Your task to perform on an android device: change the clock style Image 0: 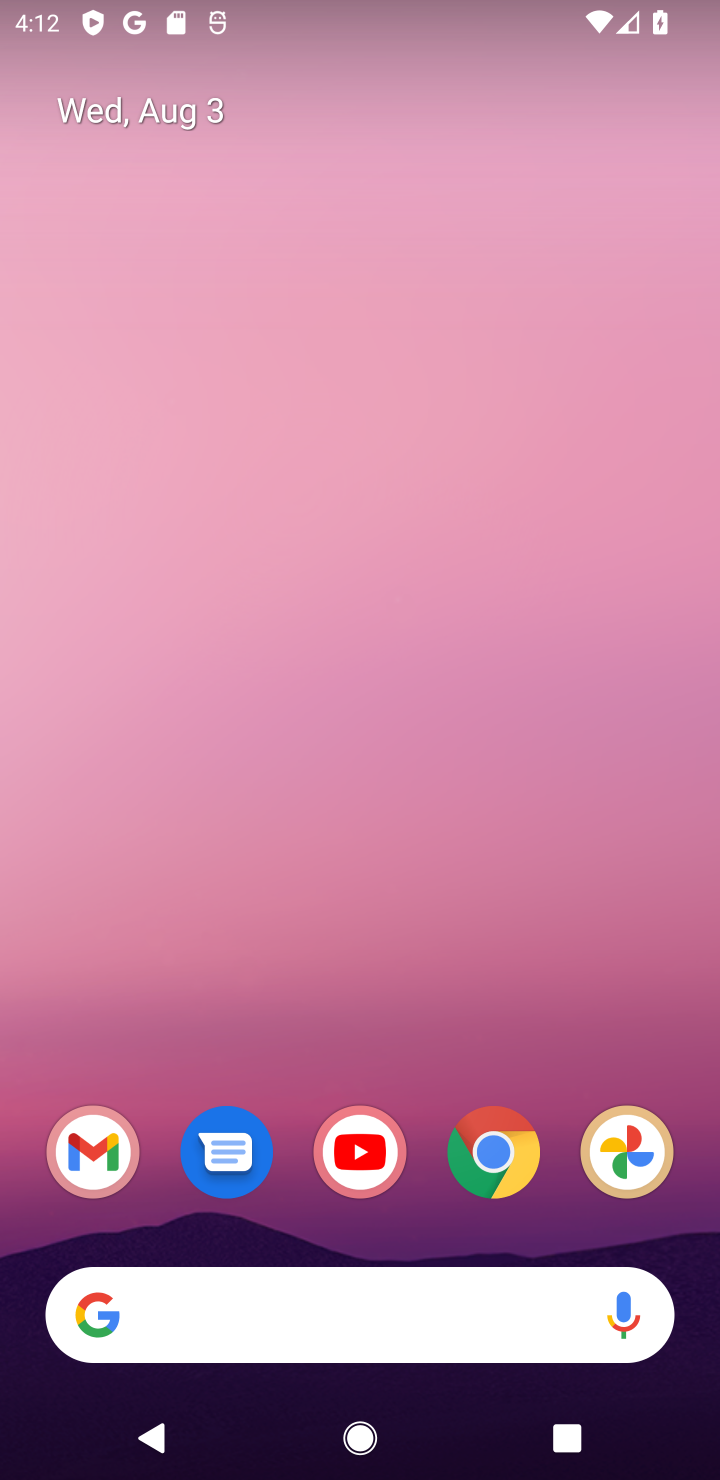
Step 0: drag from (381, 1279) to (434, 471)
Your task to perform on an android device: change the clock style Image 1: 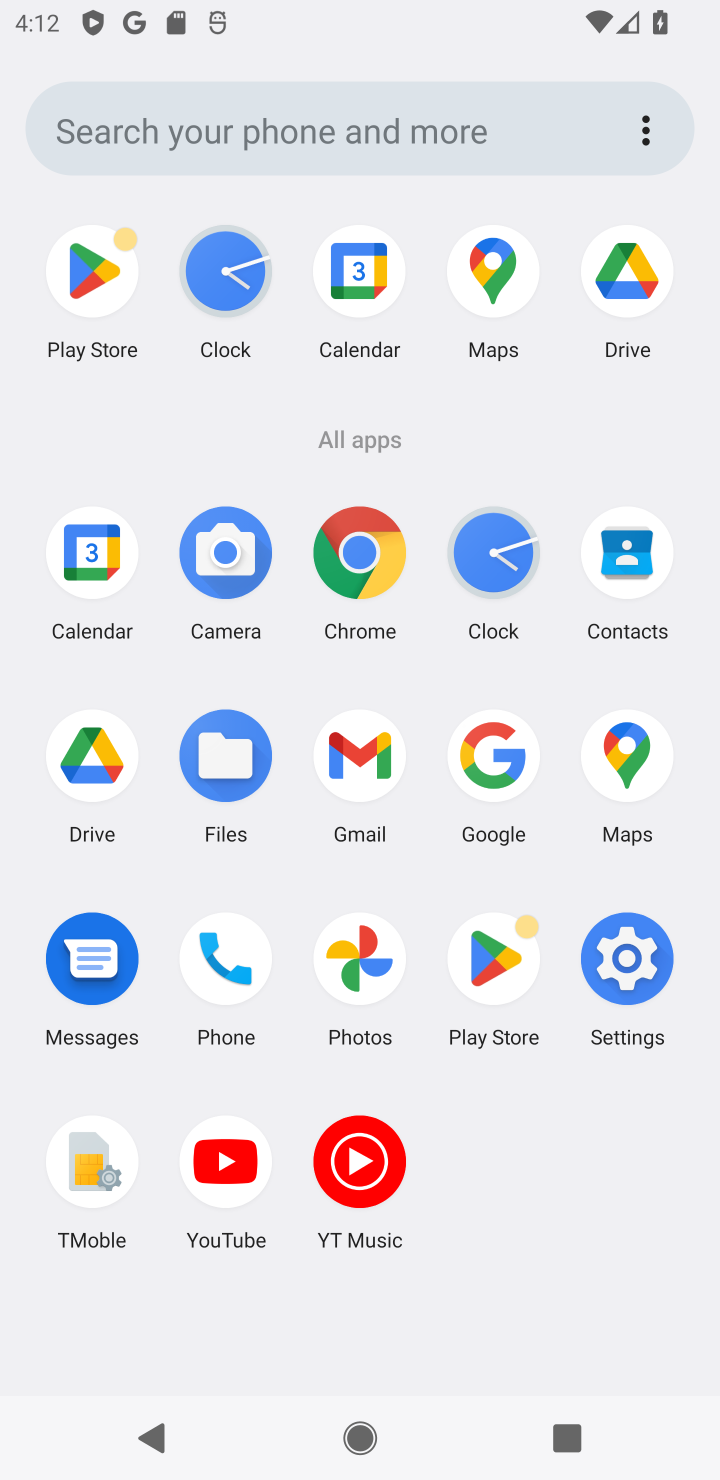
Step 1: click (492, 565)
Your task to perform on an android device: change the clock style Image 2: 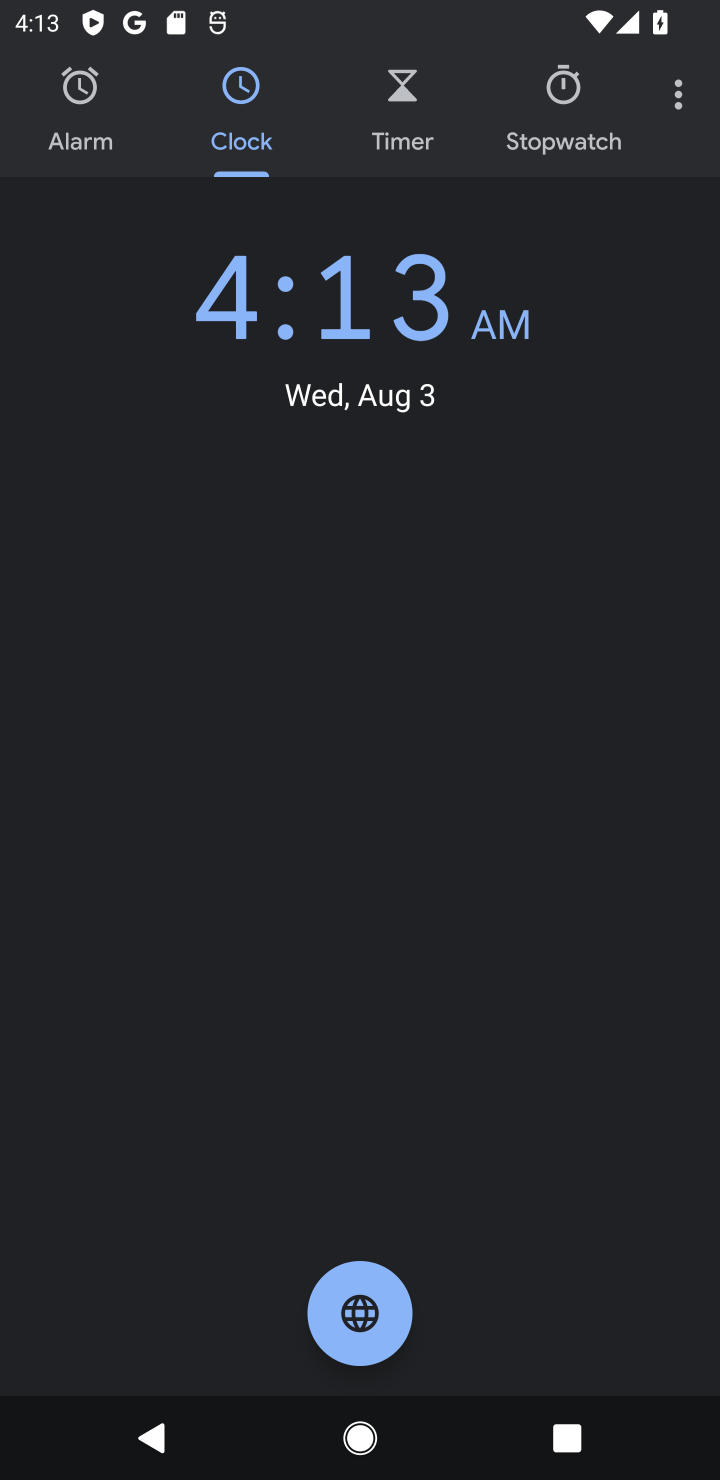
Step 2: click (680, 103)
Your task to perform on an android device: change the clock style Image 3: 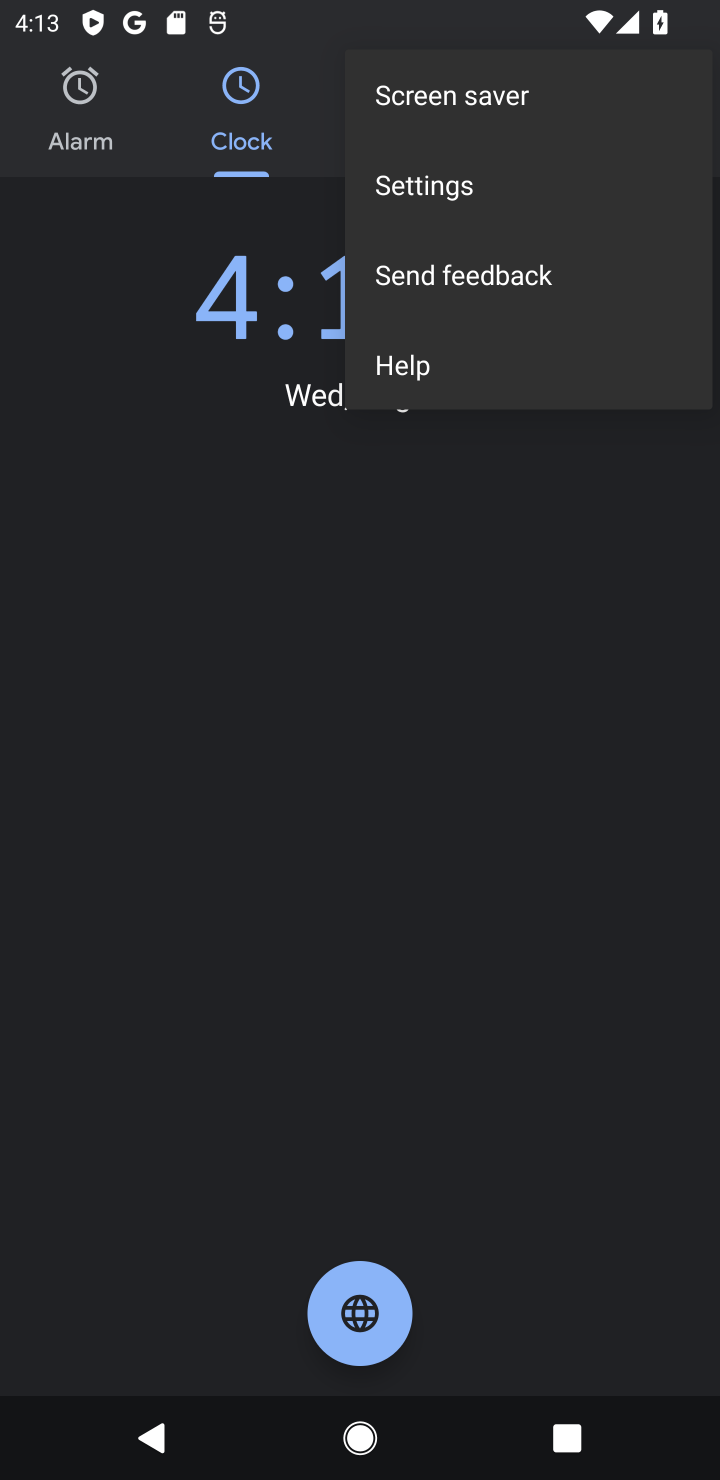
Step 3: click (480, 193)
Your task to perform on an android device: change the clock style Image 4: 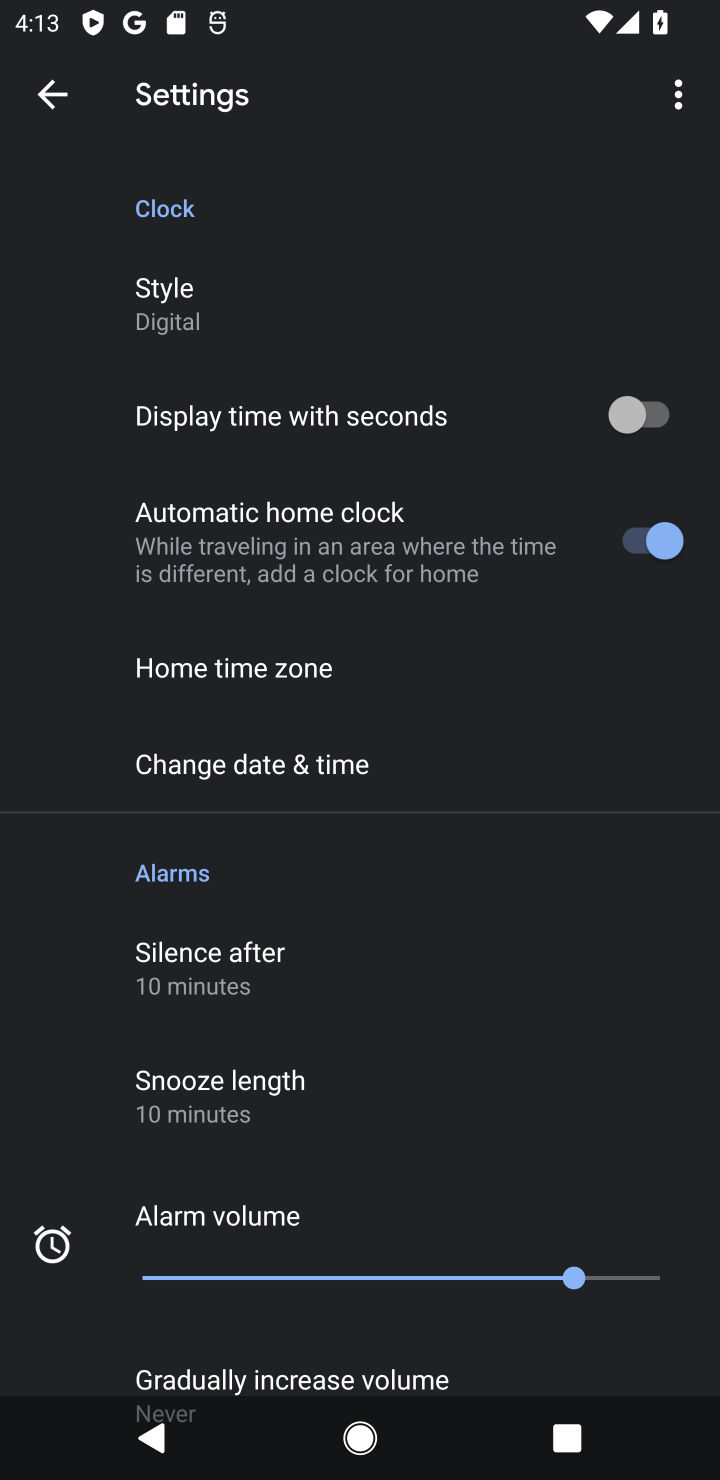
Step 4: click (344, 273)
Your task to perform on an android device: change the clock style Image 5: 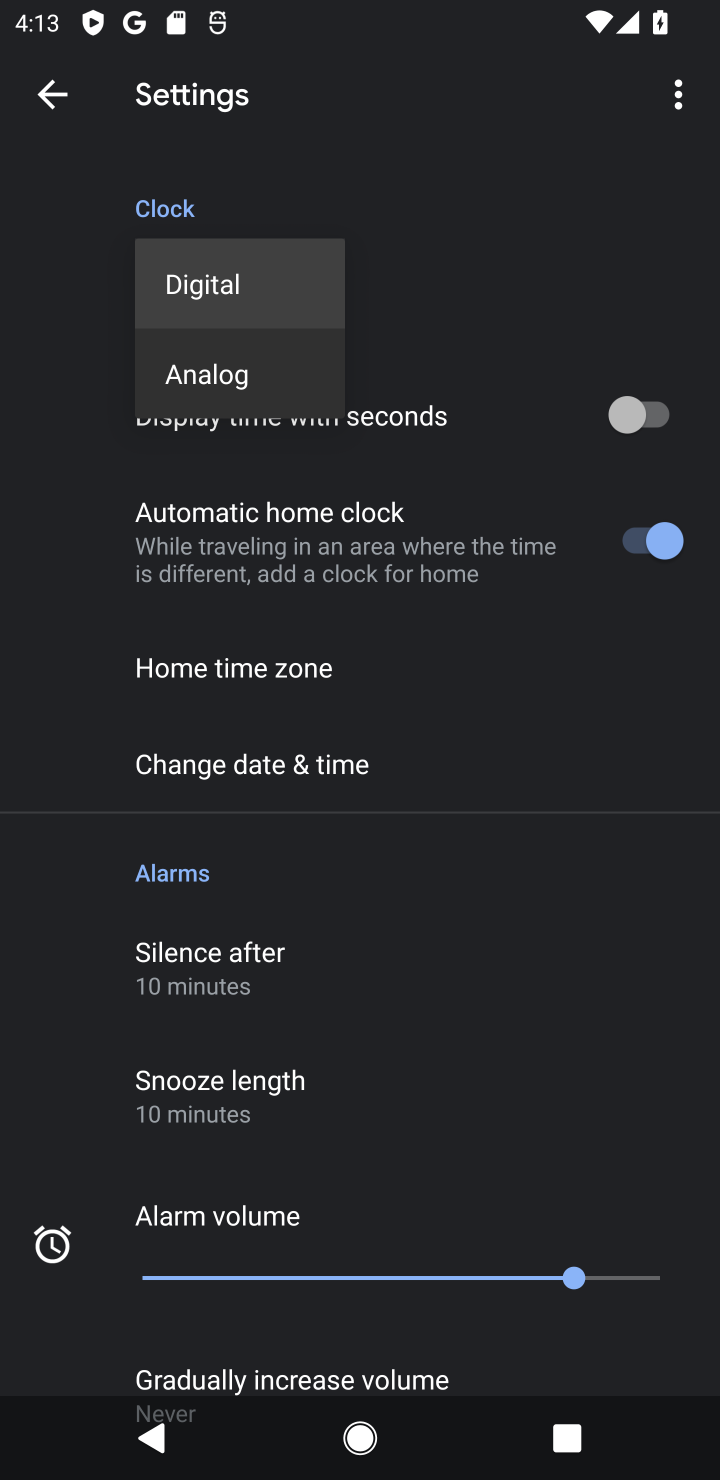
Step 5: click (252, 373)
Your task to perform on an android device: change the clock style Image 6: 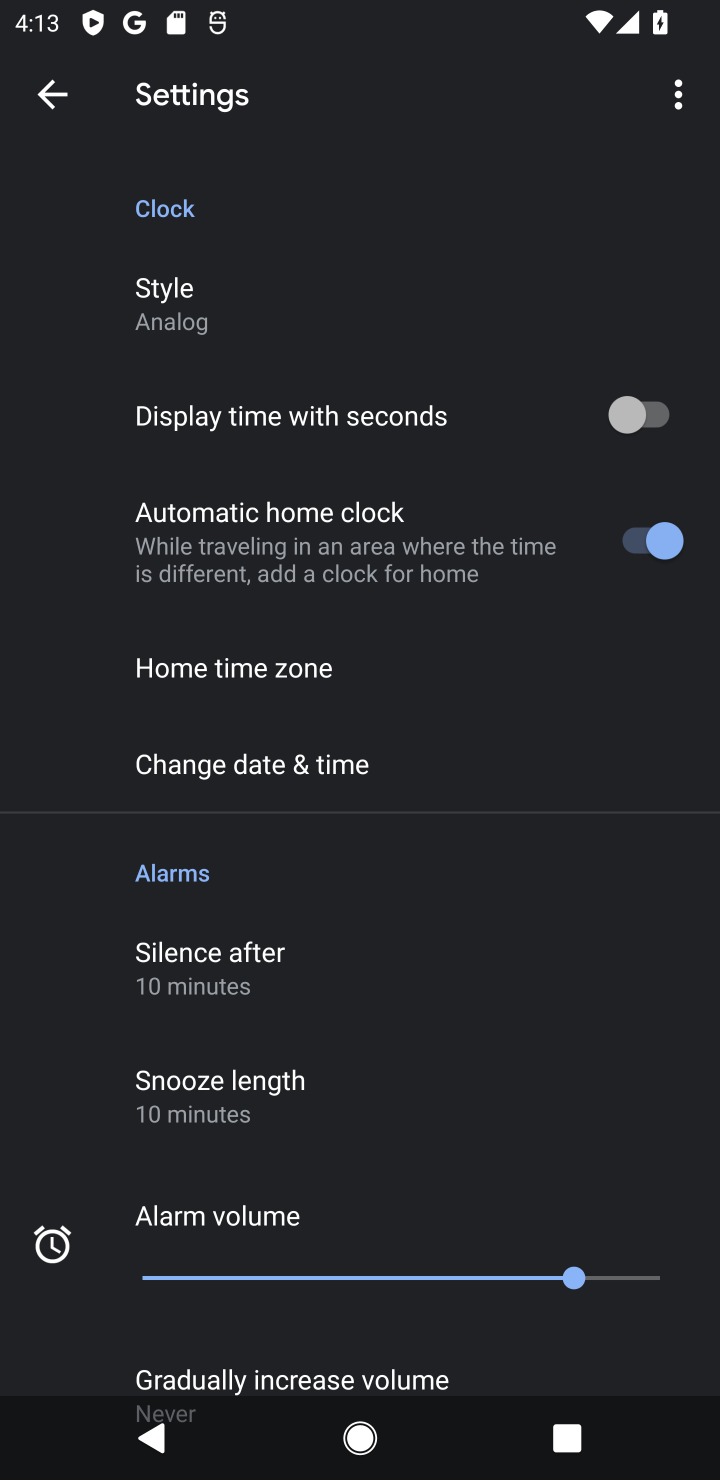
Step 6: task complete